Your task to perform on an android device: Search for vegetarian restaurants on Maps Image 0: 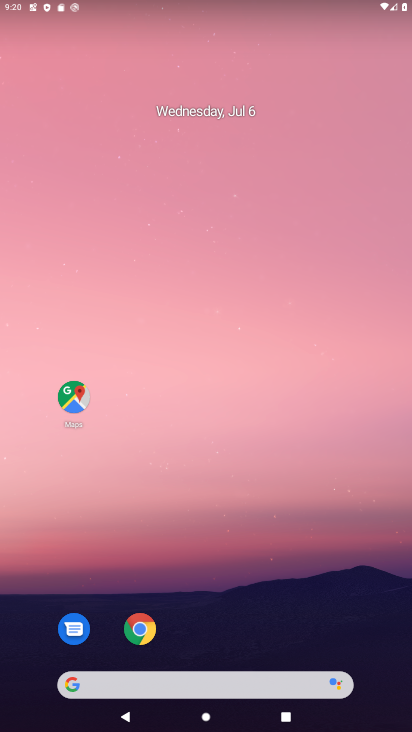
Step 0: click (76, 403)
Your task to perform on an android device: Search for vegetarian restaurants on Maps Image 1: 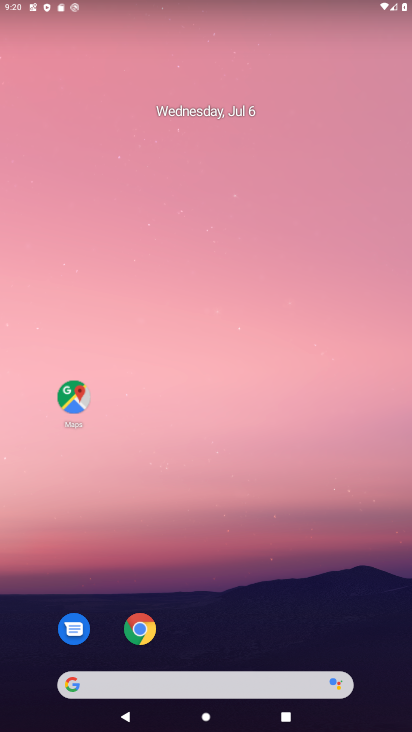
Step 1: click (76, 403)
Your task to perform on an android device: Search for vegetarian restaurants on Maps Image 2: 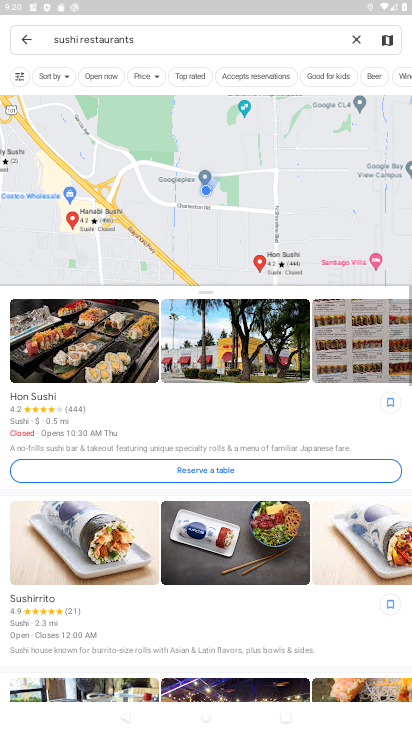
Step 2: click (360, 37)
Your task to perform on an android device: Search for vegetarian restaurants on Maps Image 3: 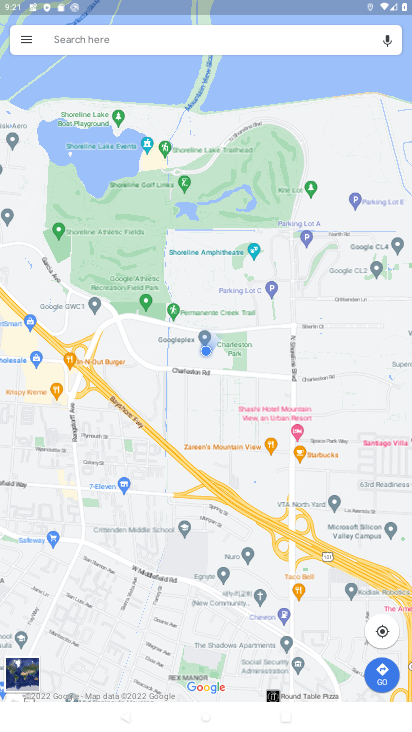
Step 3: click (320, 27)
Your task to perform on an android device: Search for vegetarian restaurants on Maps Image 4: 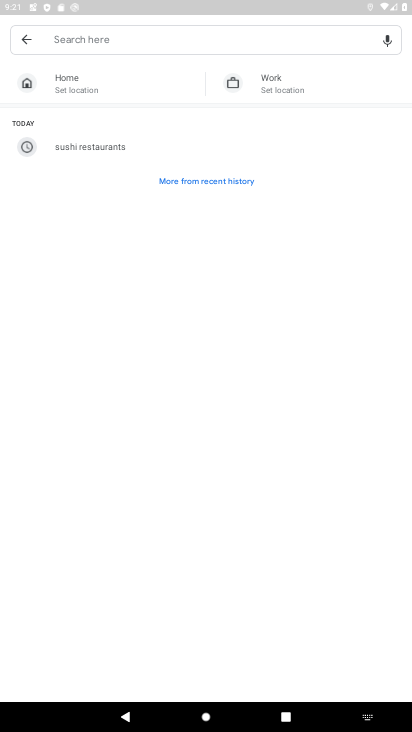
Step 4: type "vegetarian restaurants"
Your task to perform on an android device: Search for vegetarian restaurants on Maps Image 5: 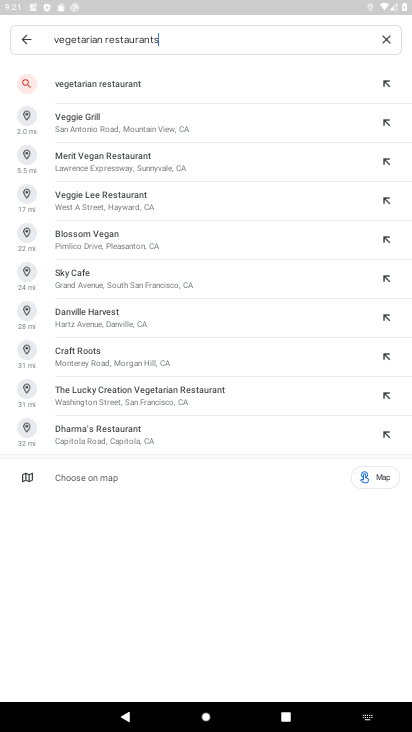
Step 5: click (156, 87)
Your task to perform on an android device: Search for vegetarian restaurants on Maps Image 6: 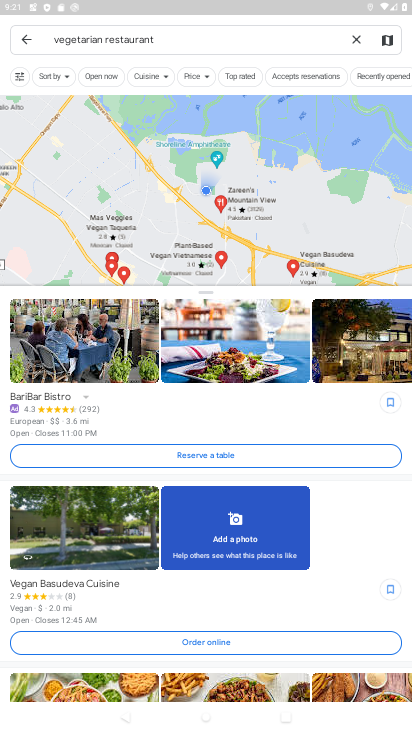
Step 6: task complete